Your task to perform on an android device: turn on the 24-hour format for clock Image 0: 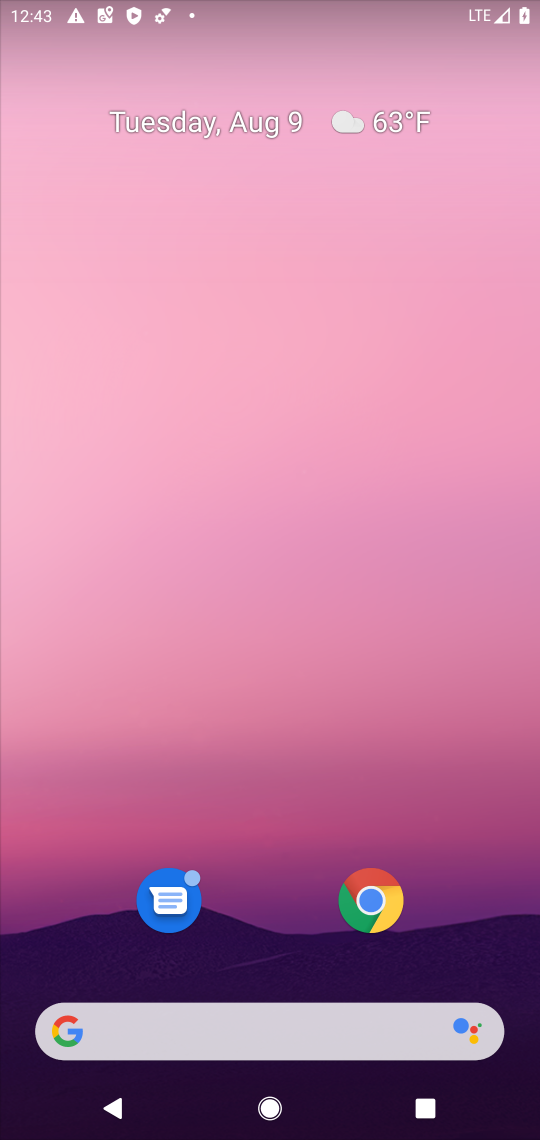
Step 0: drag from (263, 934) to (285, 192)
Your task to perform on an android device: turn on the 24-hour format for clock Image 1: 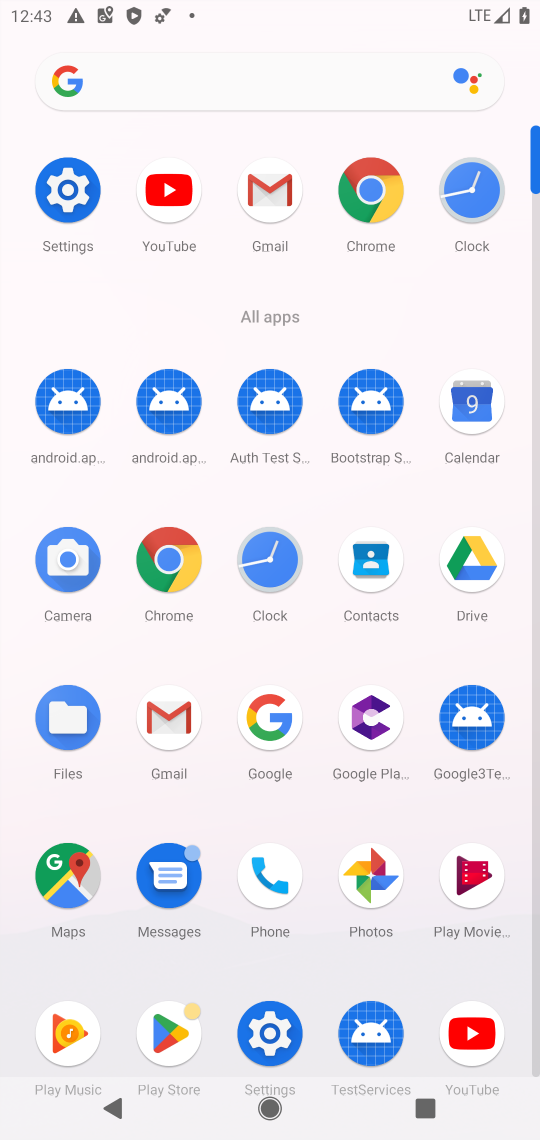
Step 1: click (464, 195)
Your task to perform on an android device: turn on the 24-hour format for clock Image 2: 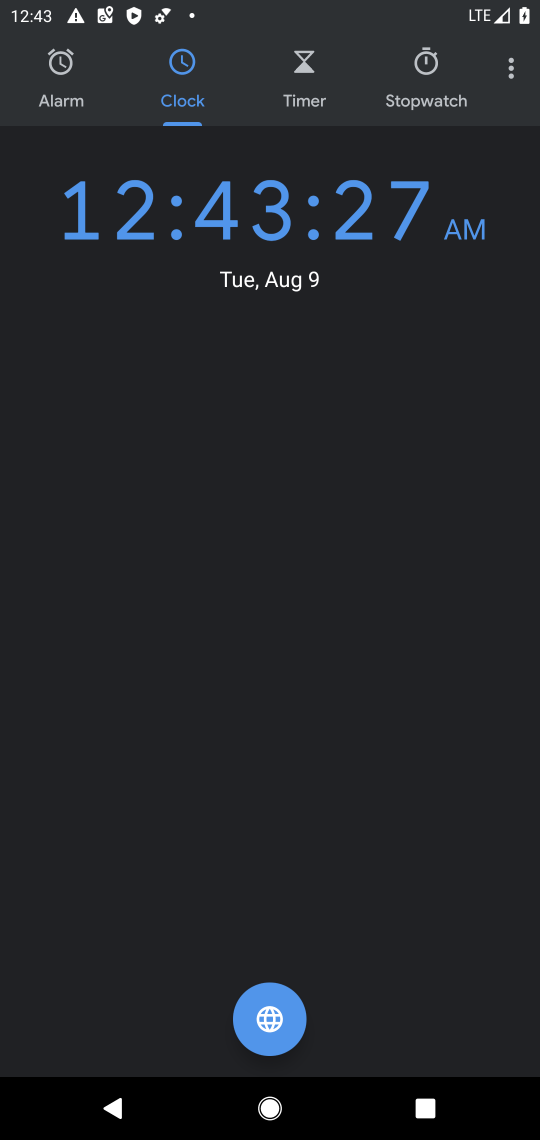
Step 2: click (513, 74)
Your task to perform on an android device: turn on the 24-hour format for clock Image 3: 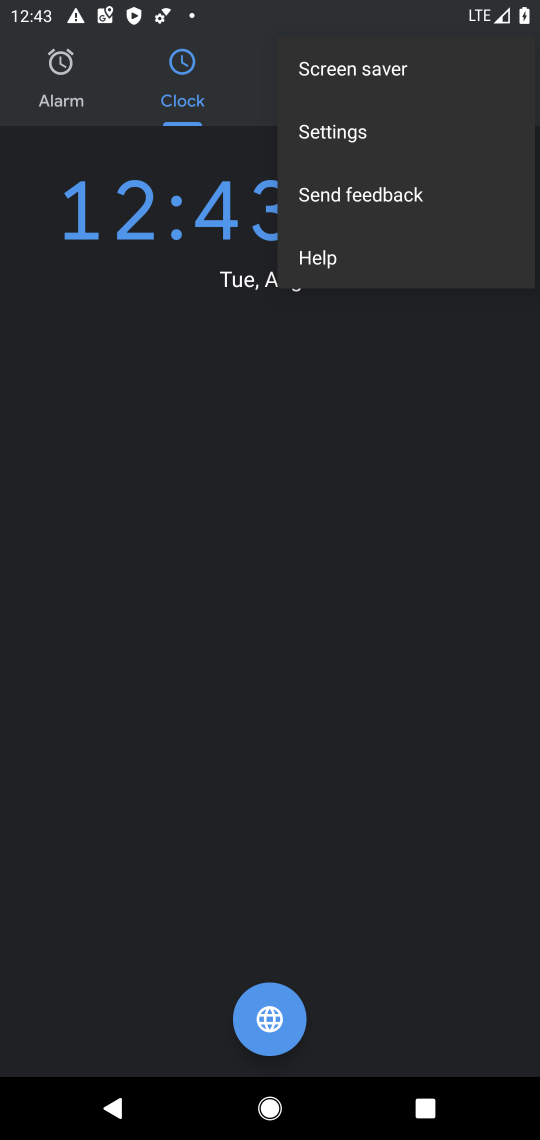
Step 3: click (342, 155)
Your task to perform on an android device: turn on the 24-hour format for clock Image 4: 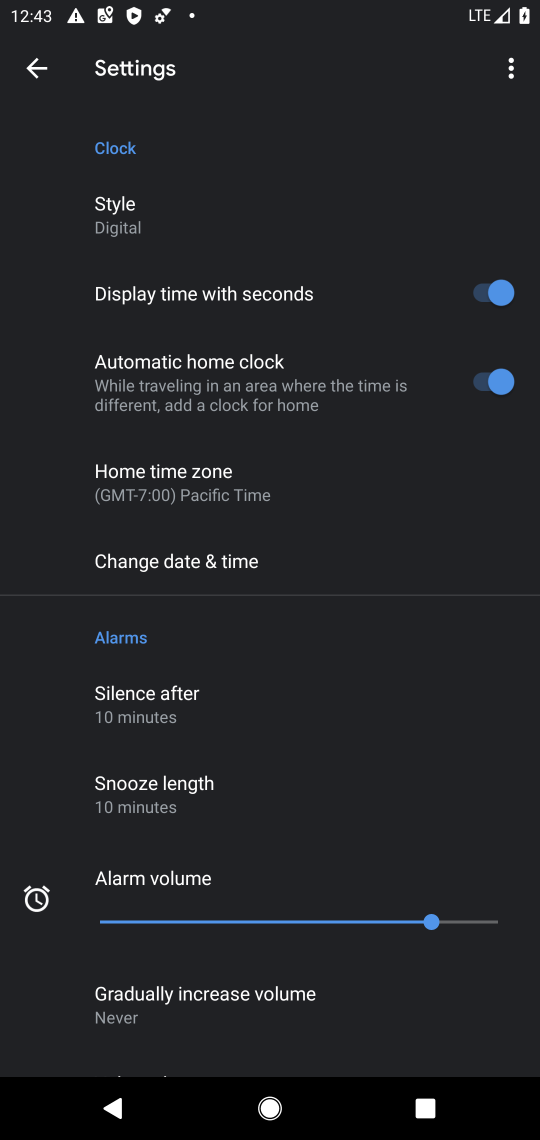
Step 4: drag from (346, 688) to (373, 475)
Your task to perform on an android device: turn on the 24-hour format for clock Image 5: 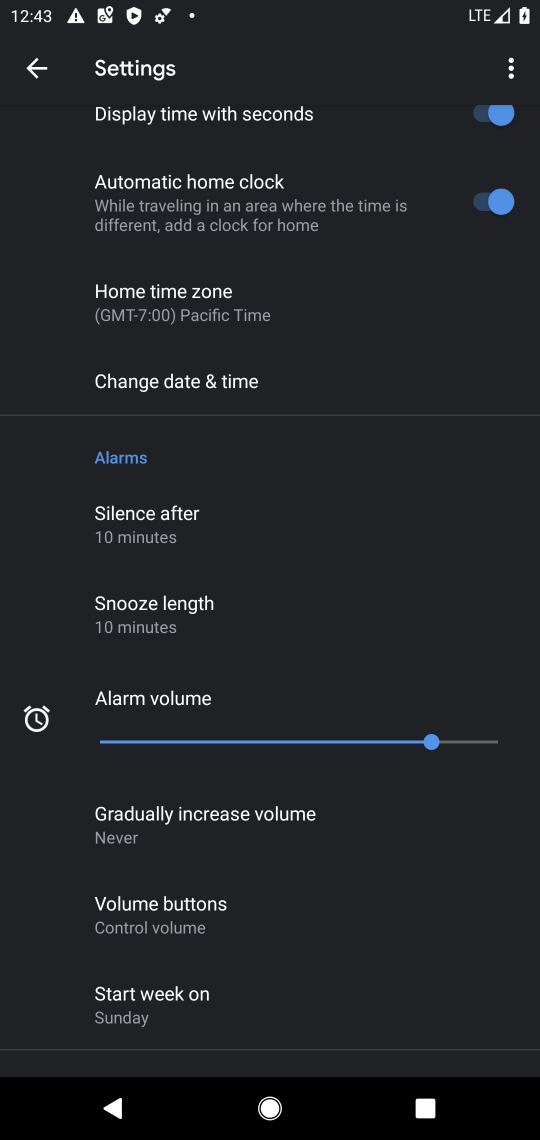
Step 5: drag from (369, 869) to (381, 617)
Your task to perform on an android device: turn on the 24-hour format for clock Image 6: 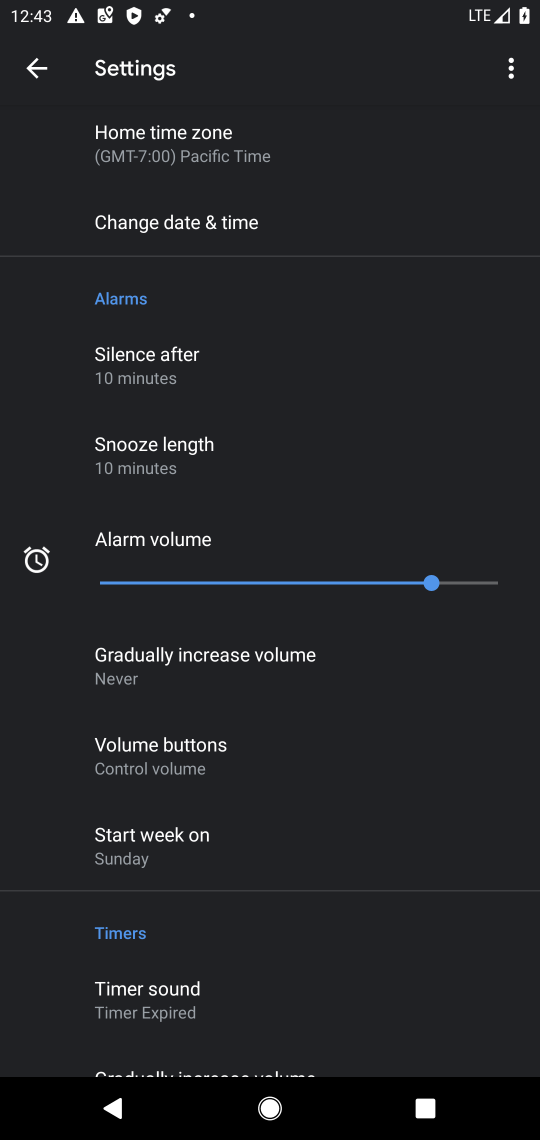
Step 6: drag from (374, 922) to (371, 616)
Your task to perform on an android device: turn on the 24-hour format for clock Image 7: 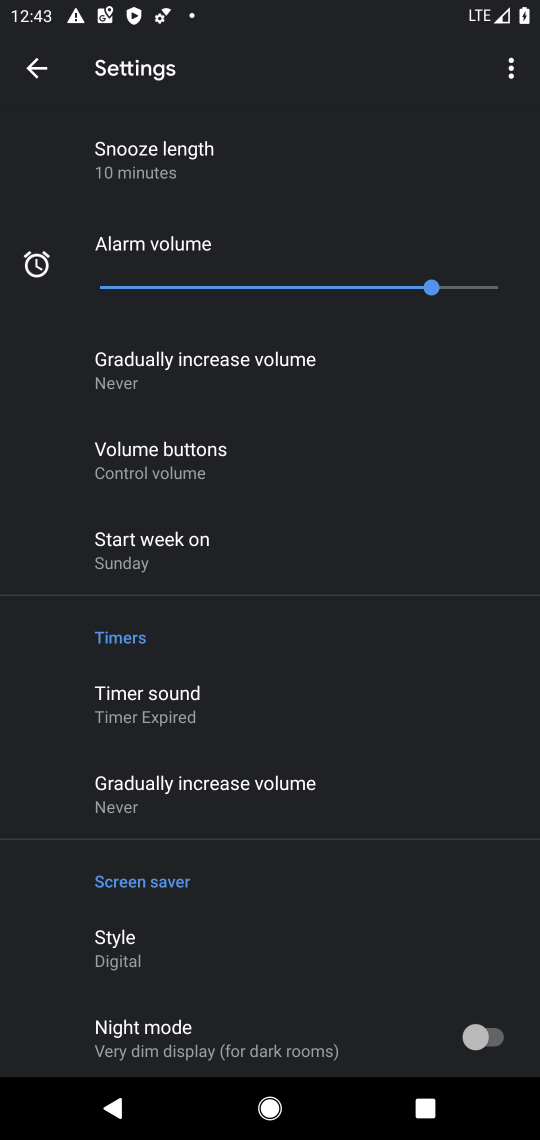
Step 7: drag from (391, 789) to (395, 528)
Your task to perform on an android device: turn on the 24-hour format for clock Image 8: 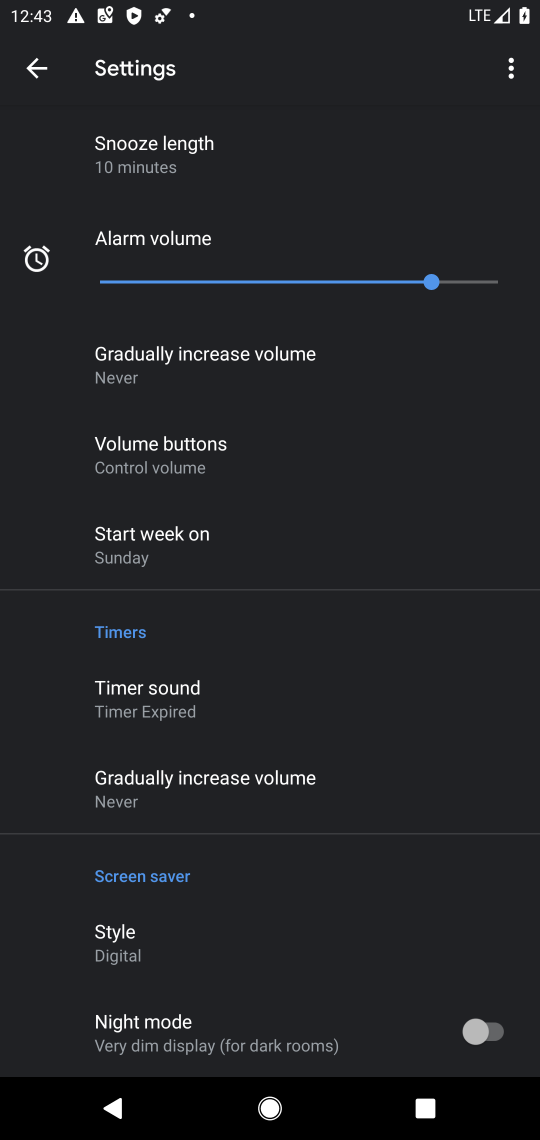
Step 8: drag from (389, 397) to (426, 696)
Your task to perform on an android device: turn on the 24-hour format for clock Image 9: 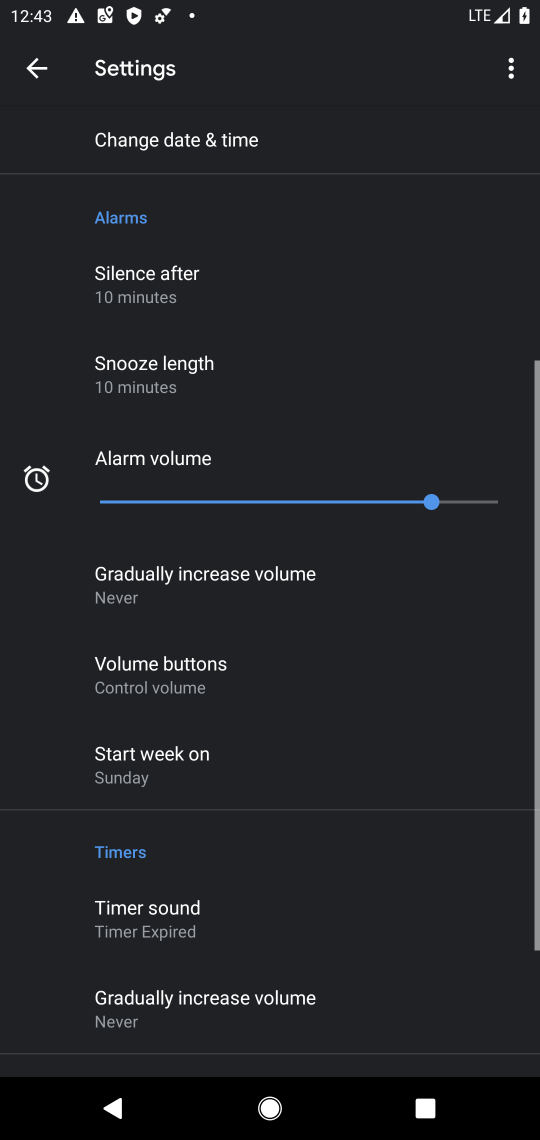
Step 9: drag from (395, 319) to (385, 731)
Your task to perform on an android device: turn on the 24-hour format for clock Image 10: 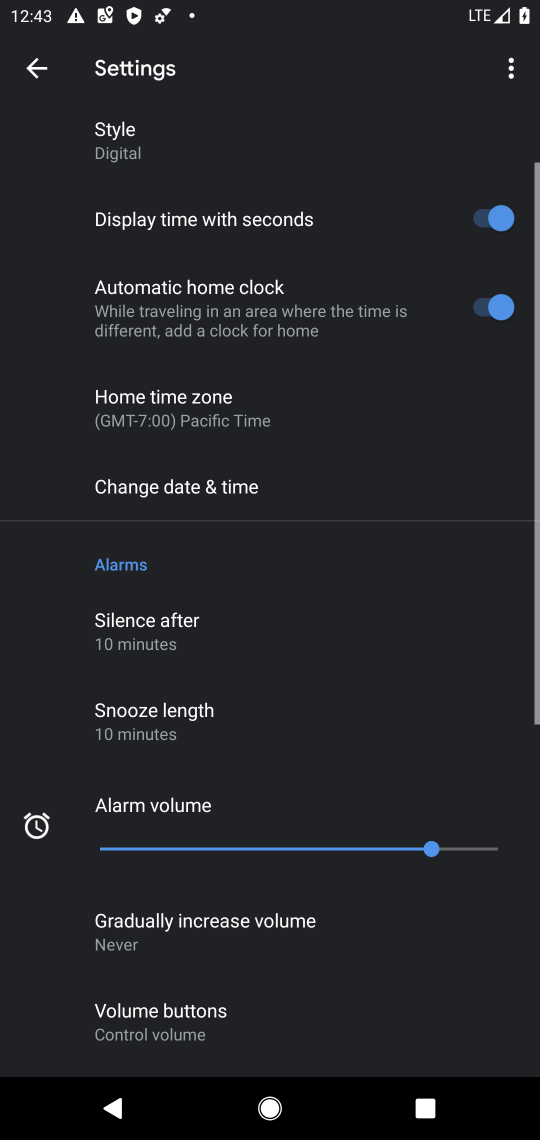
Step 10: drag from (381, 370) to (403, 687)
Your task to perform on an android device: turn on the 24-hour format for clock Image 11: 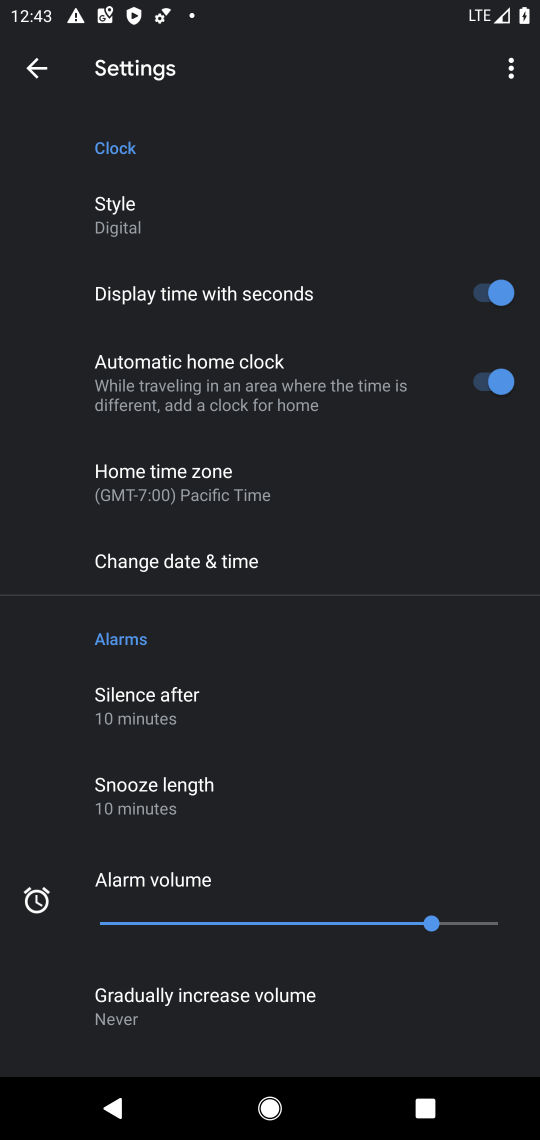
Step 11: drag from (371, 195) to (358, 561)
Your task to perform on an android device: turn on the 24-hour format for clock Image 12: 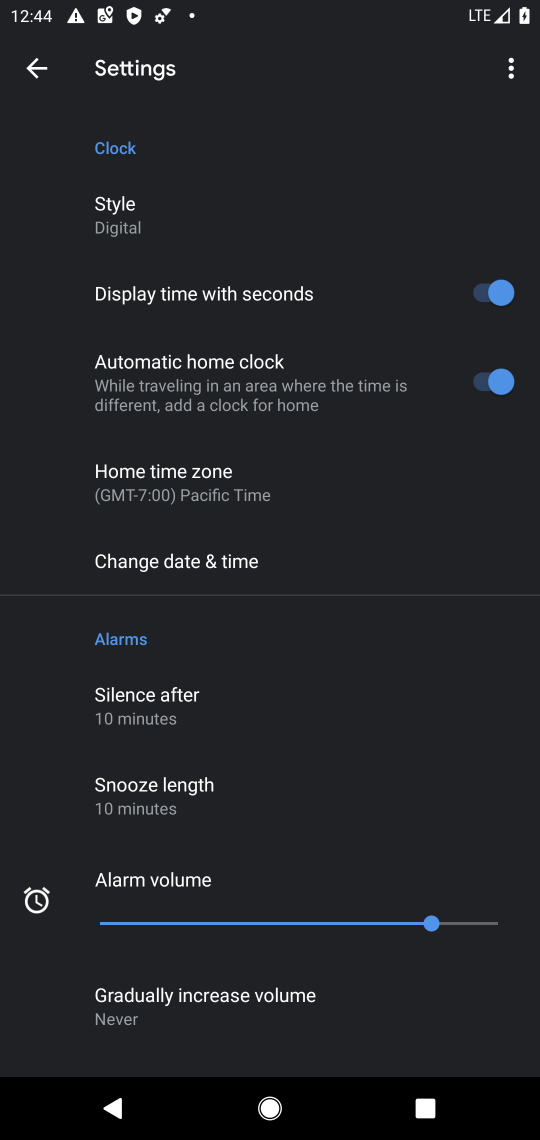
Step 12: click (211, 569)
Your task to perform on an android device: turn on the 24-hour format for clock Image 13: 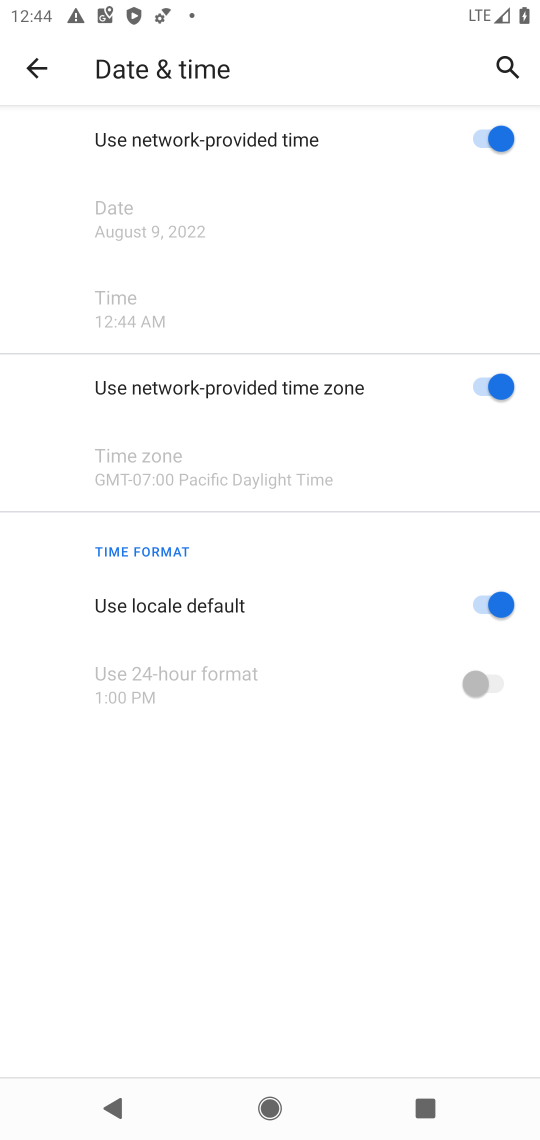
Step 13: click (488, 600)
Your task to perform on an android device: turn on the 24-hour format for clock Image 14: 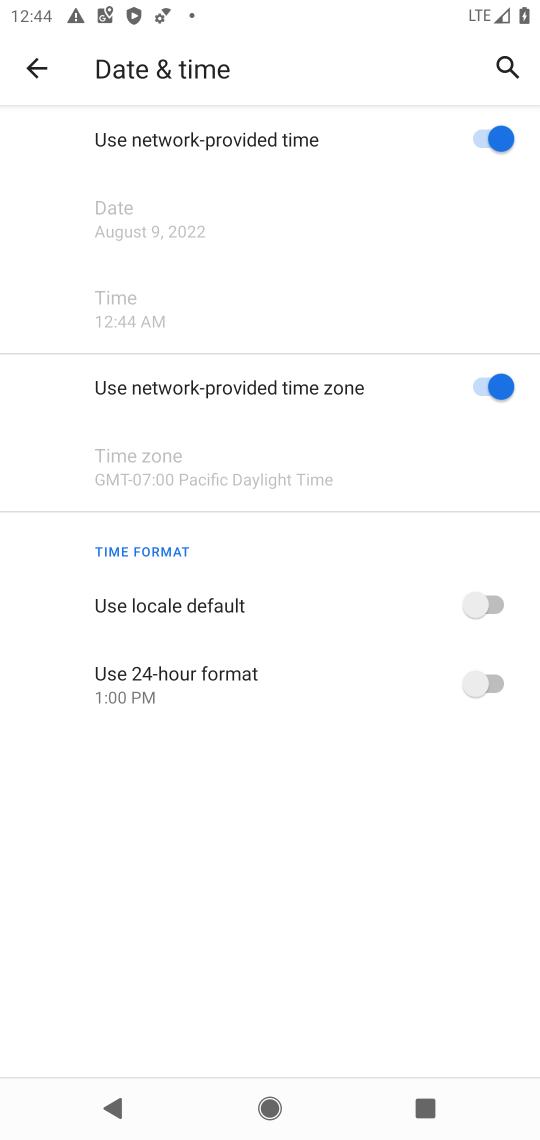
Step 14: click (476, 675)
Your task to perform on an android device: turn on the 24-hour format for clock Image 15: 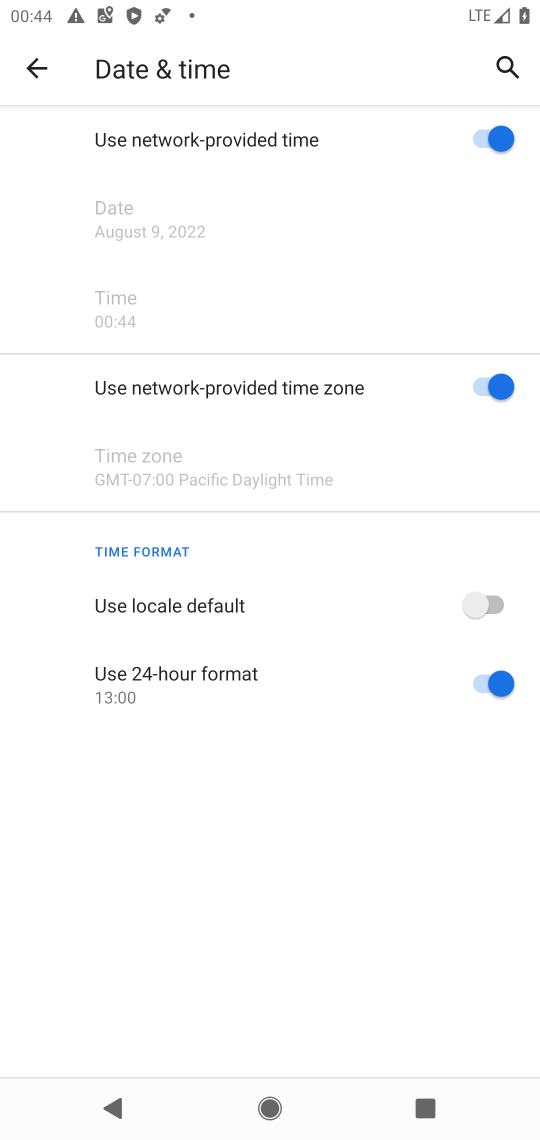
Step 15: task complete